Your task to perform on an android device: Go to network settings Image 0: 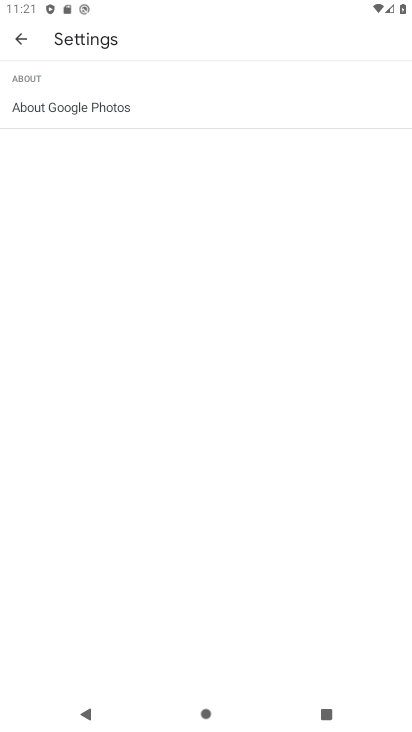
Step 0: press home button
Your task to perform on an android device: Go to network settings Image 1: 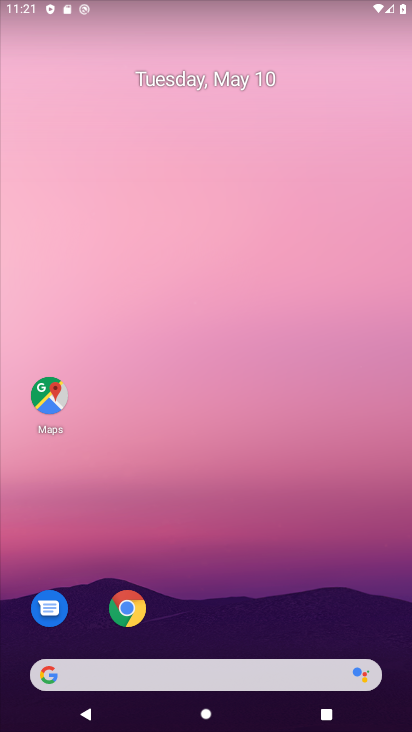
Step 1: drag from (220, 643) to (213, 284)
Your task to perform on an android device: Go to network settings Image 2: 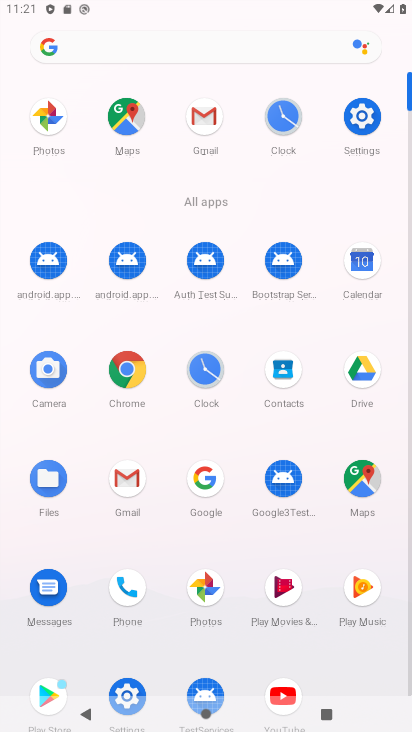
Step 2: click (362, 105)
Your task to perform on an android device: Go to network settings Image 3: 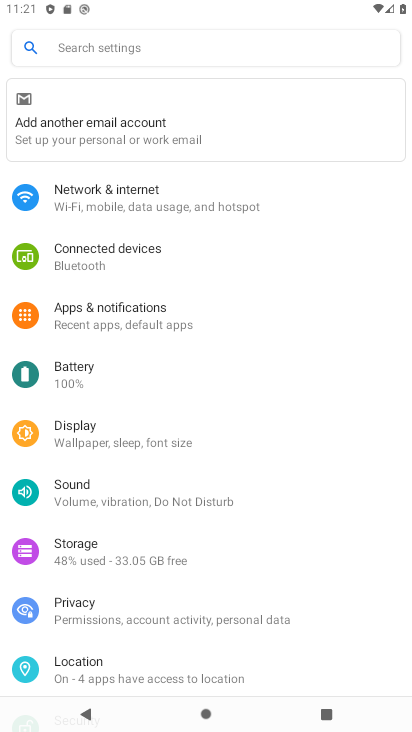
Step 3: click (212, 194)
Your task to perform on an android device: Go to network settings Image 4: 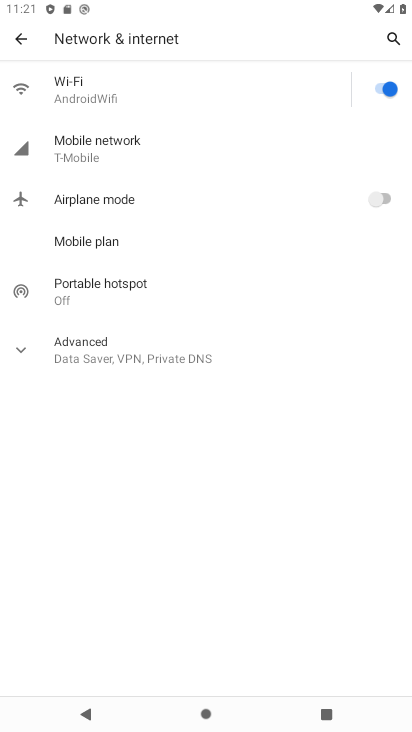
Step 4: click (204, 146)
Your task to perform on an android device: Go to network settings Image 5: 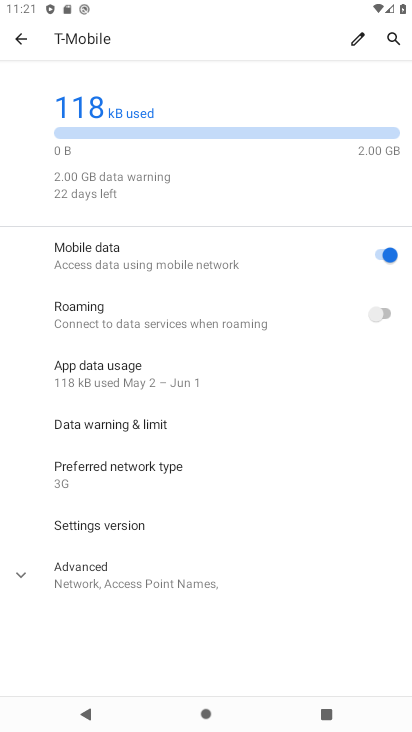
Step 5: click (129, 578)
Your task to perform on an android device: Go to network settings Image 6: 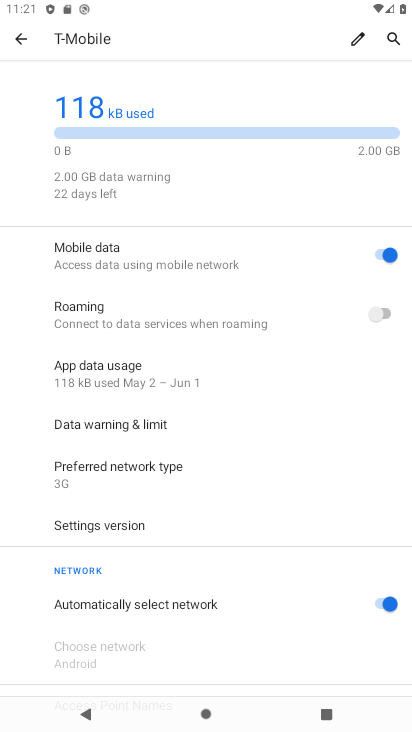
Step 6: task complete